Your task to perform on an android device: change the clock display to analog Image 0: 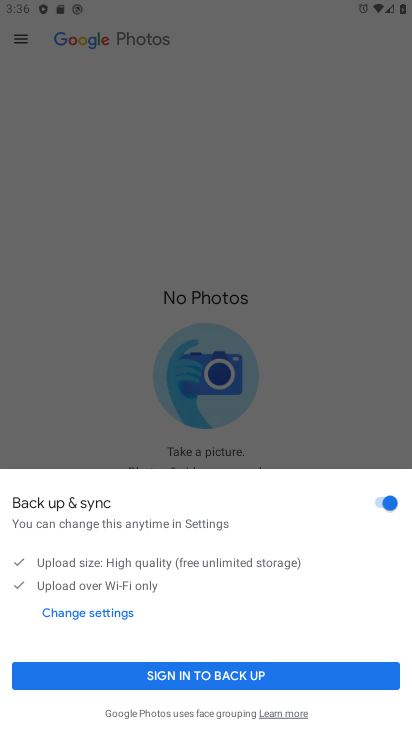
Step 0: press home button
Your task to perform on an android device: change the clock display to analog Image 1: 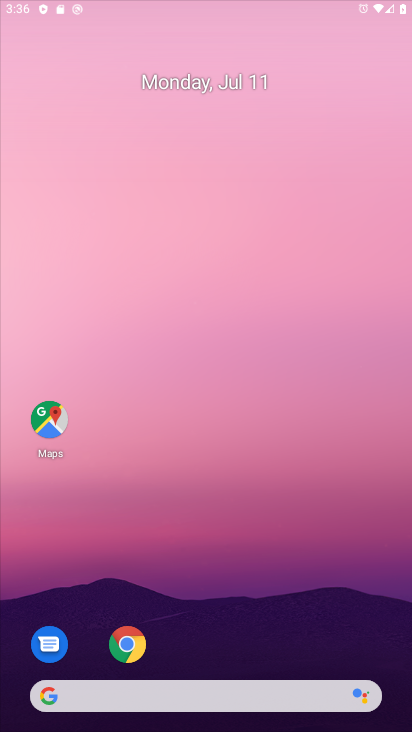
Step 1: drag from (279, 685) to (362, 9)
Your task to perform on an android device: change the clock display to analog Image 2: 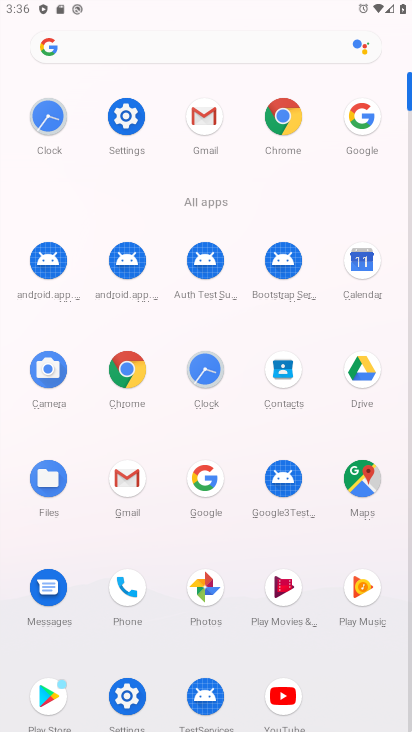
Step 2: click (210, 383)
Your task to perform on an android device: change the clock display to analog Image 3: 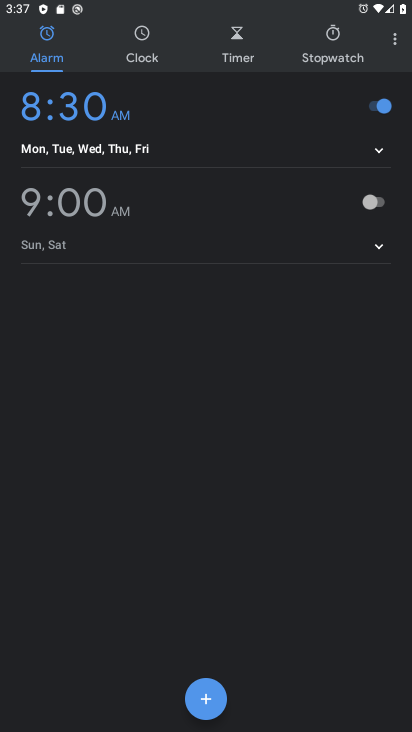
Step 3: click (385, 37)
Your task to perform on an android device: change the clock display to analog Image 4: 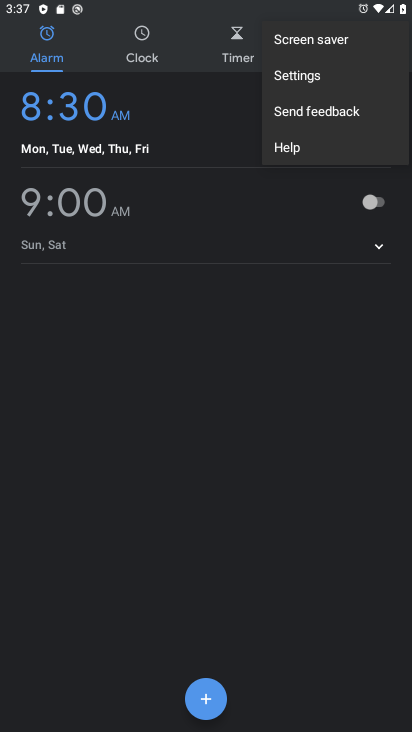
Step 4: click (316, 87)
Your task to perform on an android device: change the clock display to analog Image 5: 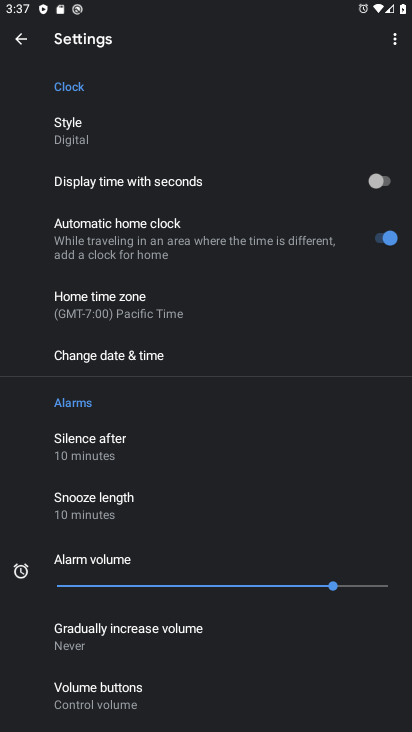
Step 5: click (109, 128)
Your task to perform on an android device: change the clock display to analog Image 6: 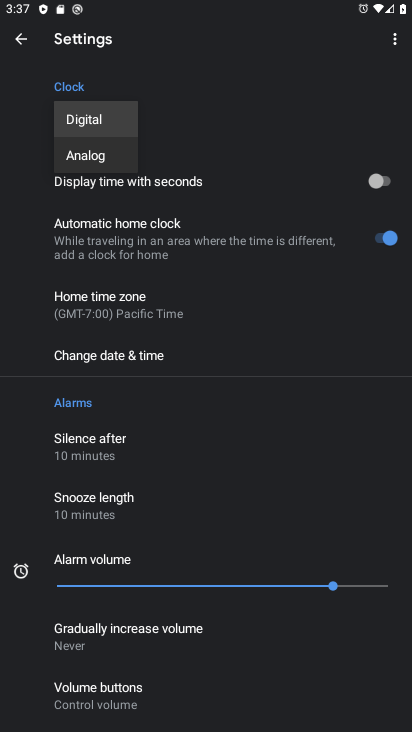
Step 6: click (107, 156)
Your task to perform on an android device: change the clock display to analog Image 7: 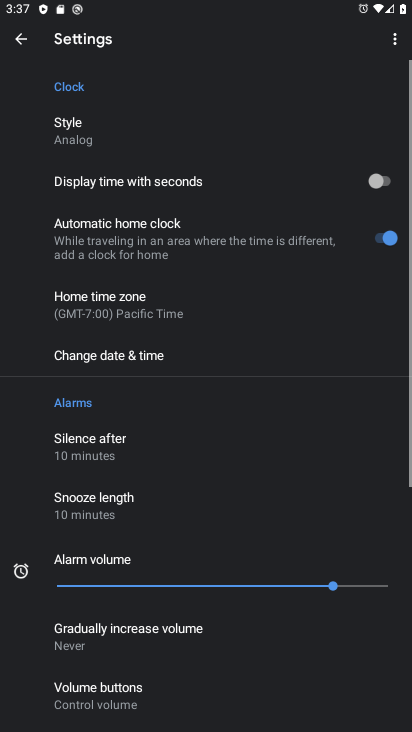
Step 7: task complete